Your task to perform on an android device: turn off picture-in-picture Image 0: 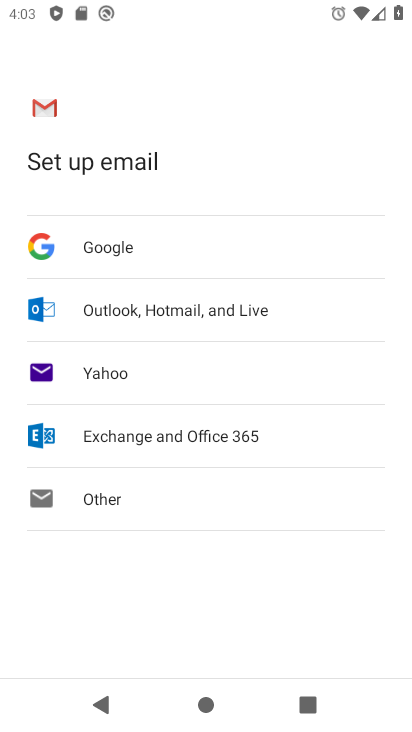
Step 0: press home button
Your task to perform on an android device: turn off picture-in-picture Image 1: 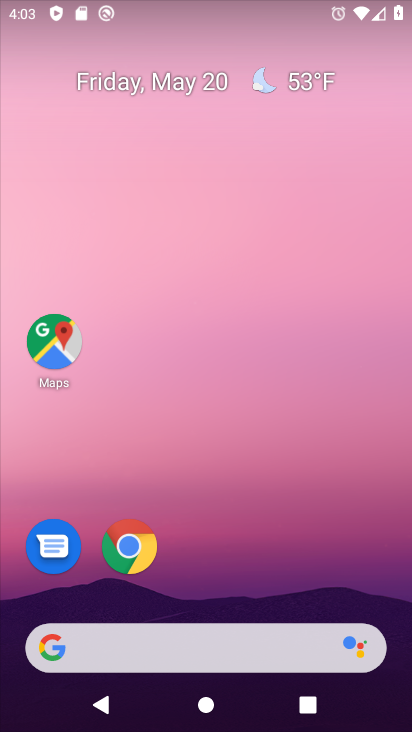
Step 1: click (118, 537)
Your task to perform on an android device: turn off picture-in-picture Image 2: 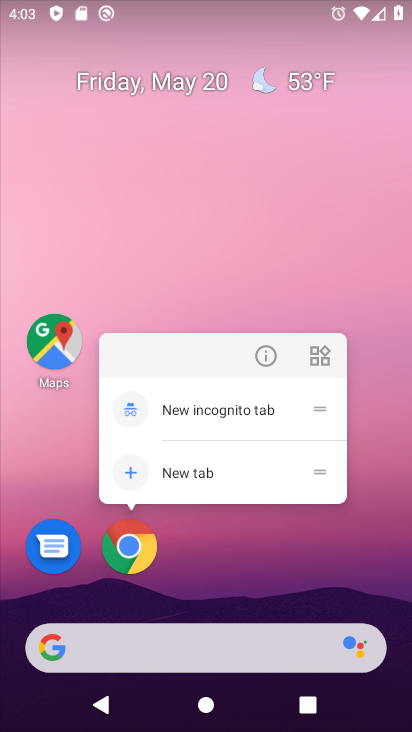
Step 2: click (257, 347)
Your task to perform on an android device: turn off picture-in-picture Image 3: 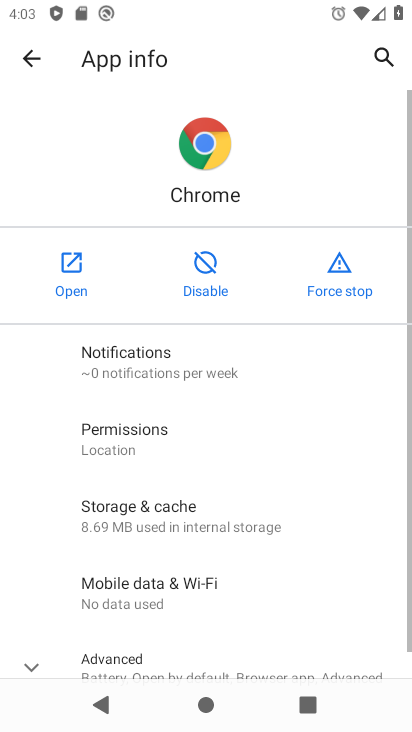
Step 3: drag from (242, 560) to (350, 9)
Your task to perform on an android device: turn off picture-in-picture Image 4: 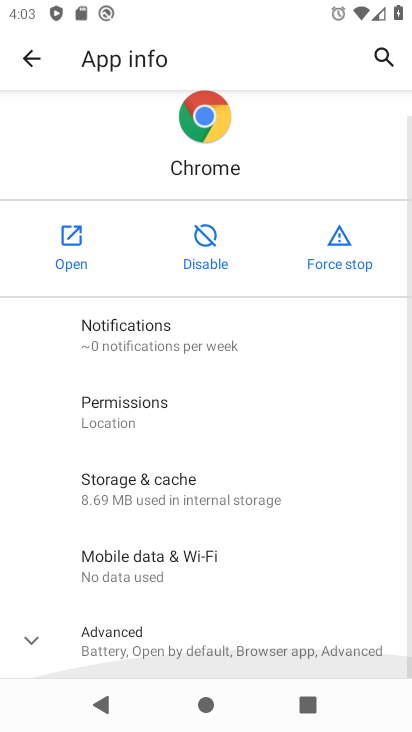
Step 4: click (149, 633)
Your task to perform on an android device: turn off picture-in-picture Image 5: 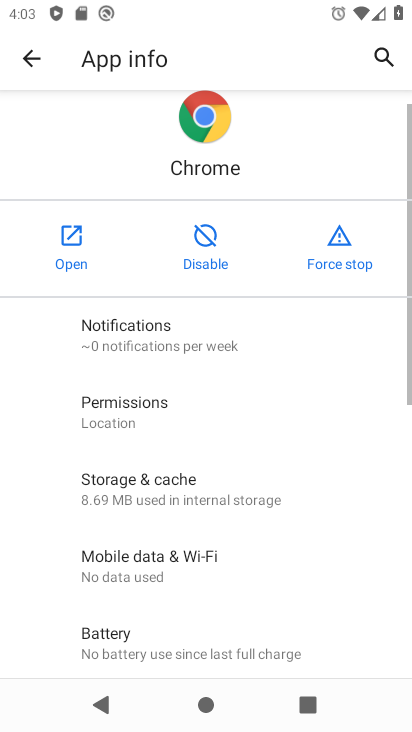
Step 5: drag from (152, 631) to (355, 154)
Your task to perform on an android device: turn off picture-in-picture Image 6: 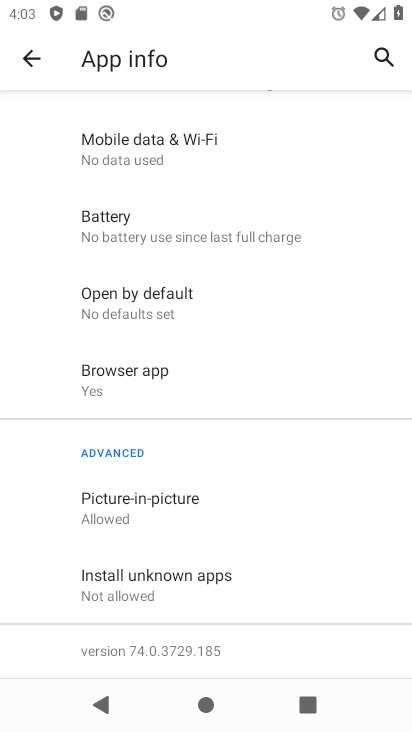
Step 6: click (207, 584)
Your task to perform on an android device: turn off picture-in-picture Image 7: 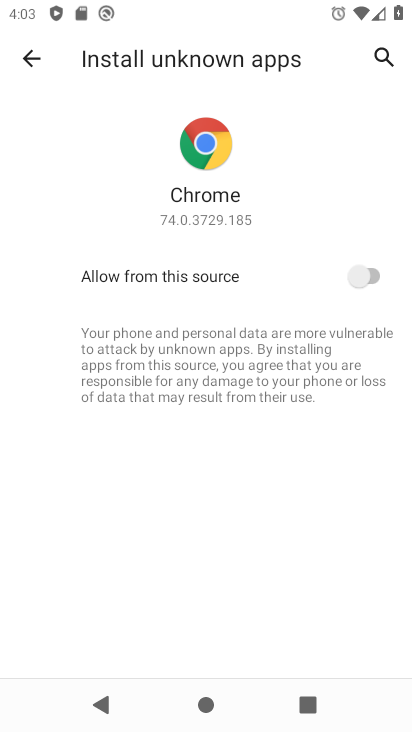
Step 7: click (35, 53)
Your task to perform on an android device: turn off picture-in-picture Image 8: 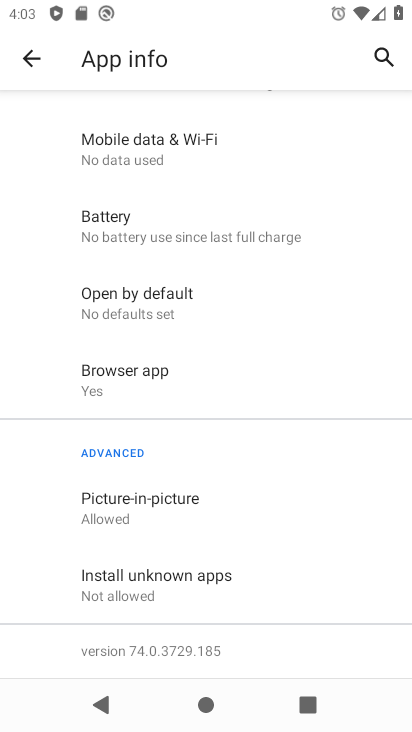
Step 8: click (162, 518)
Your task to perform on an android device: turn off picture-in-picture Image 9: 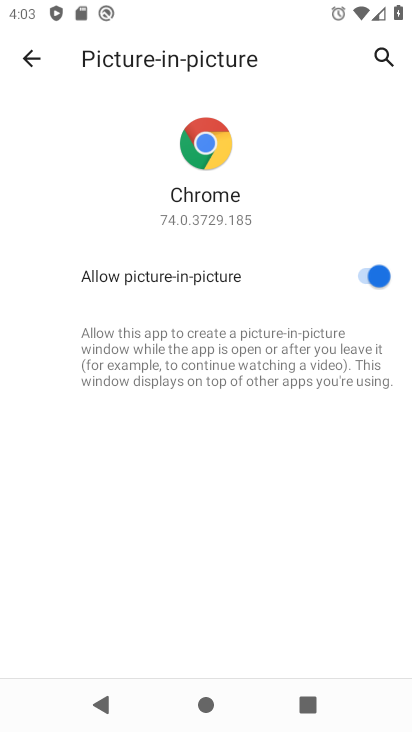
Step 9: click (360, 277)
Your task to perform on an android device: turn off picture-in-picture Image 10: 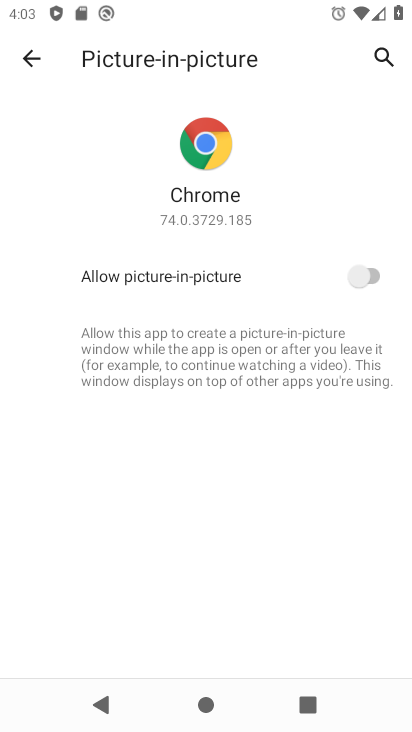
Step 10: task complete